Your task to perform on an android device: change the clock display to digital Image 0: 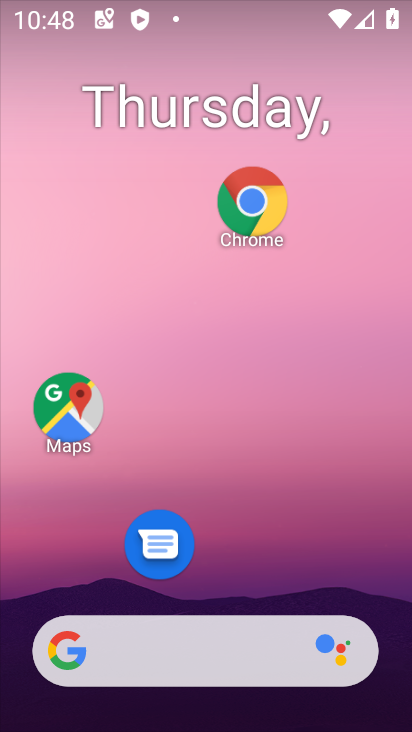
Step 0: drag from (209, 565) to (186, 124)
Your task to perform on an android device: change the clock display to digital Image 1: 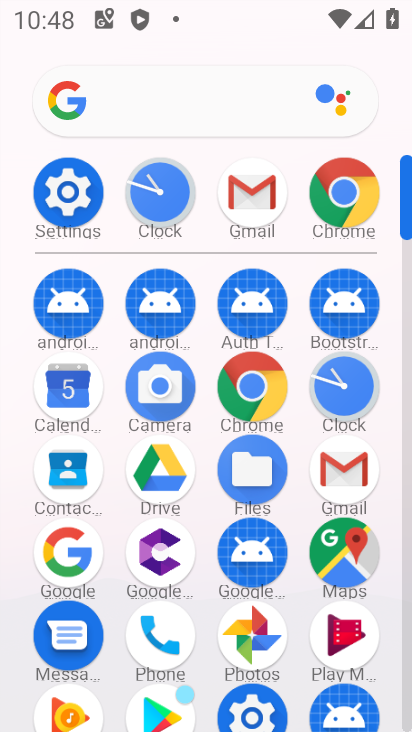
Step 1: click (346, 382)
Your task to perform on an android device: change the clock display to digital Image 2: 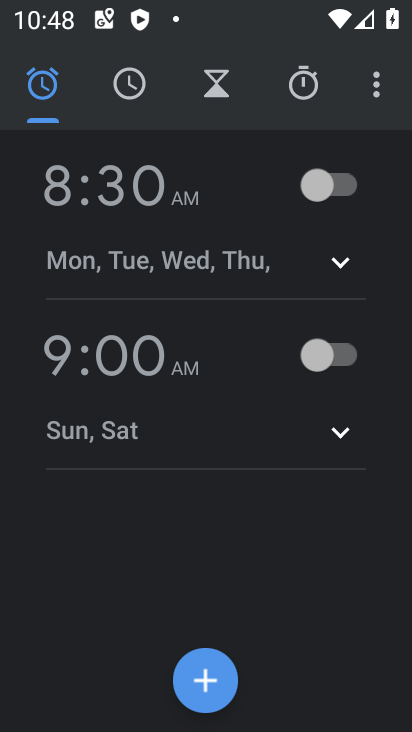
Step 2: click (376, 103)
Your task to perform on an android device: change the clock display to digital Image 3: 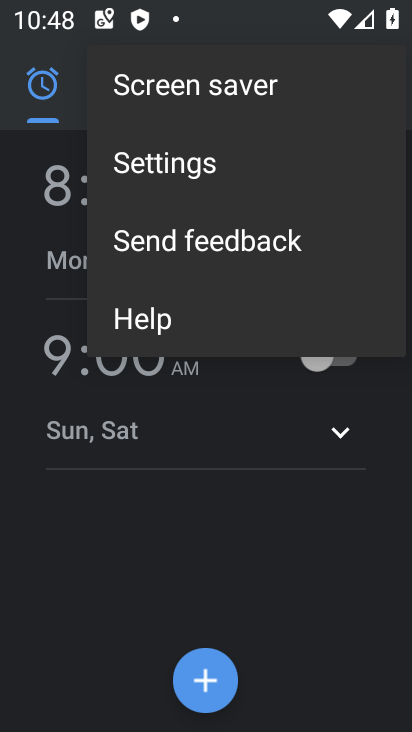
Step 3: click (231, 164)
Your task to perform on an android device: change the clock display to digital Image 4: 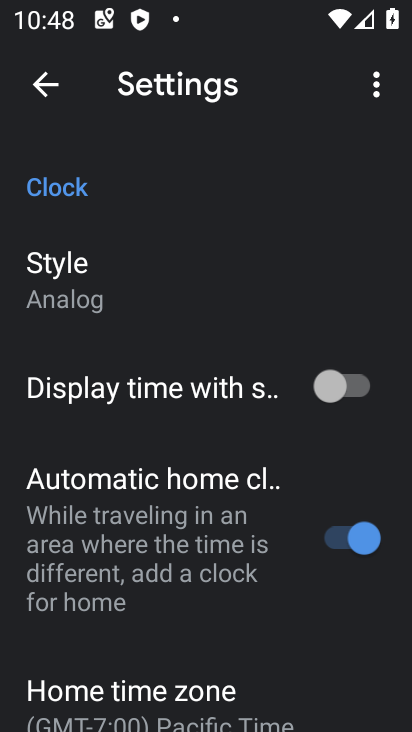
Step 4: click (131, 286)
Your task to perform on an android device: change the clock display to digital Image 5: 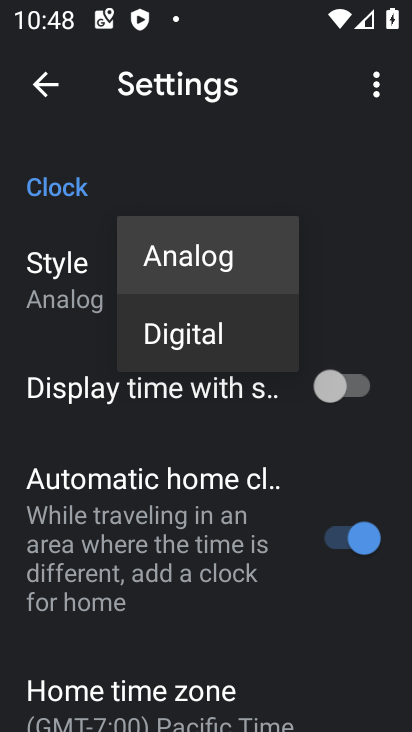
Step 5: click (191, 326)
Your task to perform on an android device: change the clock display to digital Image 6: 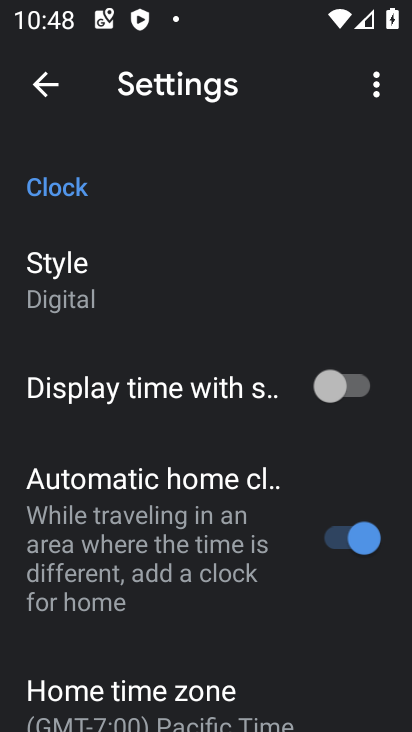
Step 6: task complete